Your task to perform on an android device: see tabs open on other devices in the chrome app Image 0: 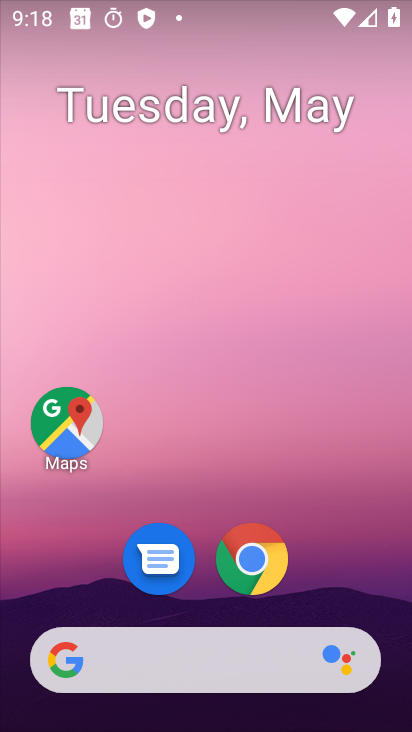
Step 0: drag from (315, 583) to (135, 83)
Your task to perform on an android device: see tabs open on other devices in the chrome app Image 1: 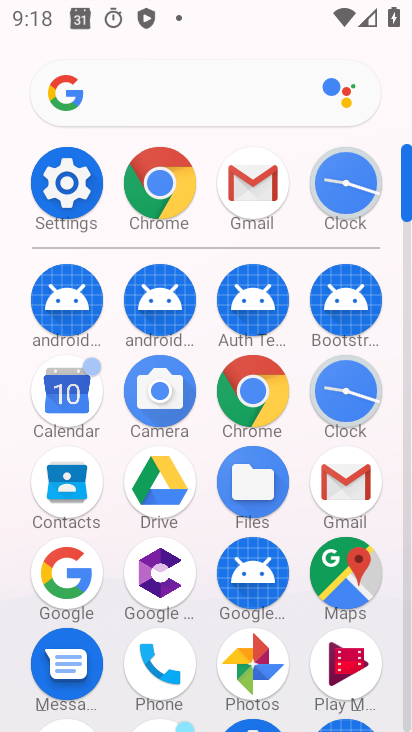
Step 1: drag from (314, 471) to (178, 142)
Your task to perform on an android device: see tabs open on other devices in the chrome app Image 2: 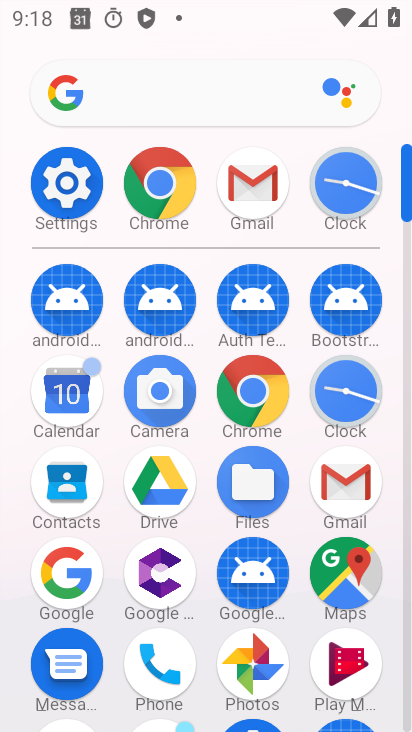
Step 2: drag from (286, 490) to (156, 186)
Your task to perform on an android device: see tabs open on other devices in the chrome app Image 3: 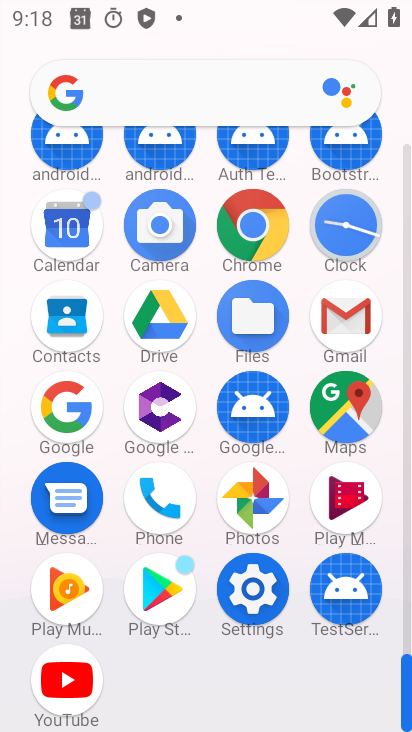
Step 3: drag from (277, 547) to (279, 512)
Your task to perform on an android device: see tabs open on other devices in the chrome app Image 4: 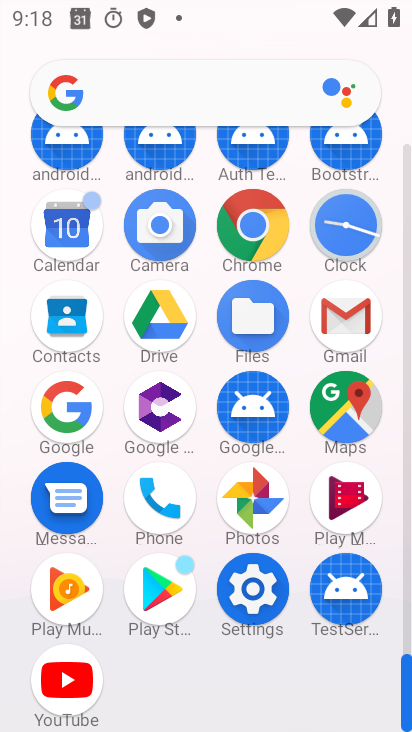
Step 4: drag from (166, 195) to (247, 386)
Your task to perform on an android device: see tabs open on other devices in the chrome app Image 5: 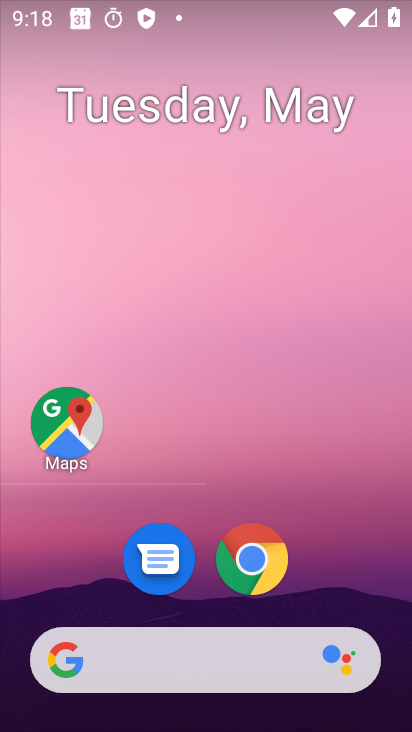
Step 5: click (237, 214)
Your task to perform on an android device: see tabs open on other devices in the chrome app Image 6: 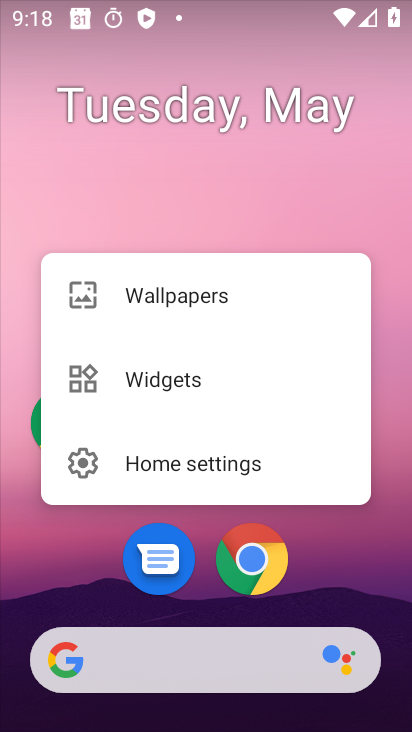
Step 6: click (250, 223)
Your task to perform on an android device: see tabs open on other devices in the chrome app Image 7: 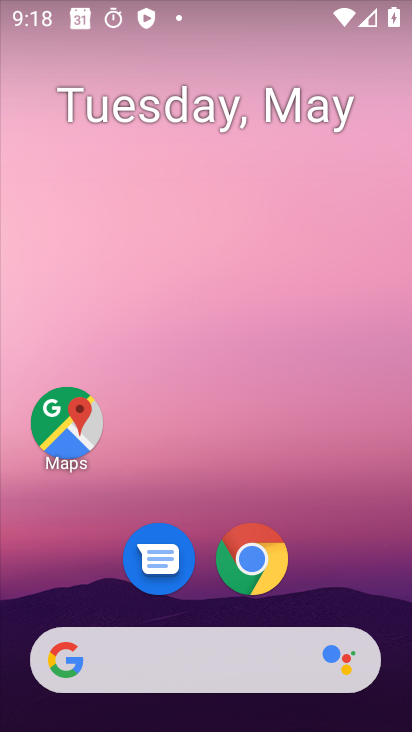
Step 7: click (255, 557)
Your task to perform on an android device: see tabs open on other devices in the chrome app Image 8: 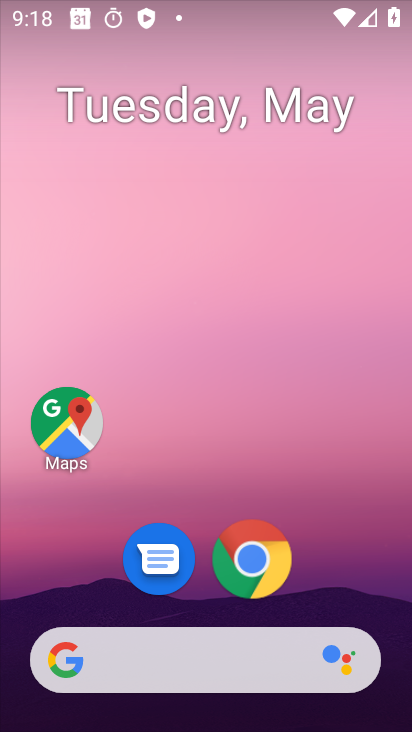
Step 8: click (255, 557)
Your task to perform on an android device: see tabs open on other devices in the chrome app Image 9: 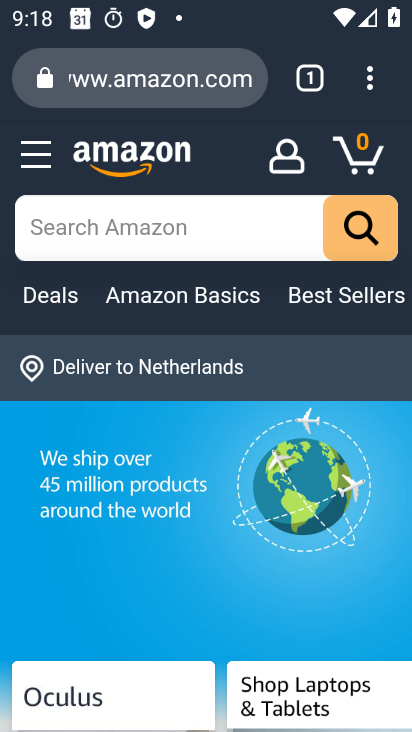
Step 9: drag from (365, 80) to (94, 377)
Your task to perform on an android device: see tabs open on other devices in the chrome app Image 10: 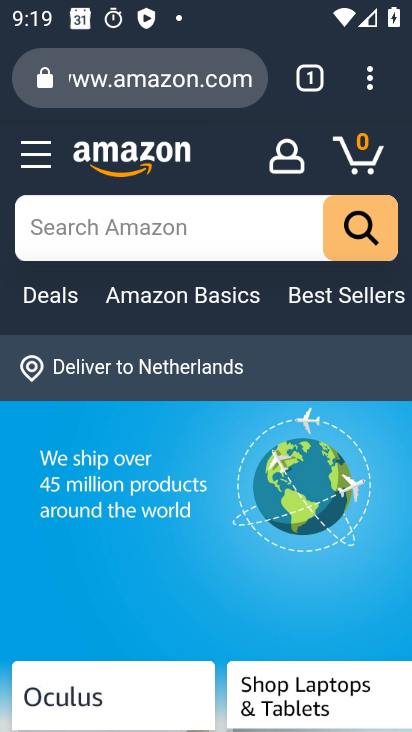
Step 10: click (93, 377)
Your task to perform on an android device: see tabs open on other devices in the chrome app Image 11: 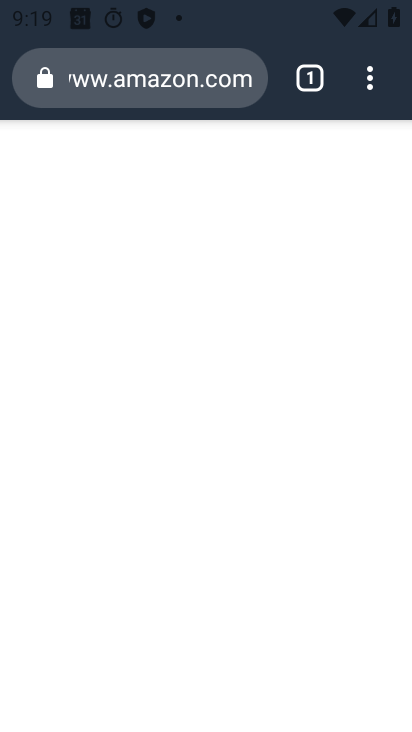
Step 11: click (93, 377)
Your task to perform on an android device: see tabs open on other devices in the chrome app Image 12: 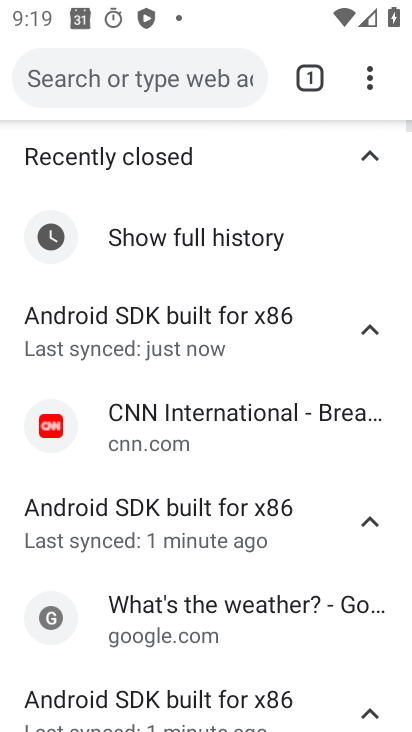
Step 12: task complete